Your task to perform on an android device: find photos in the google photos app Image 0: 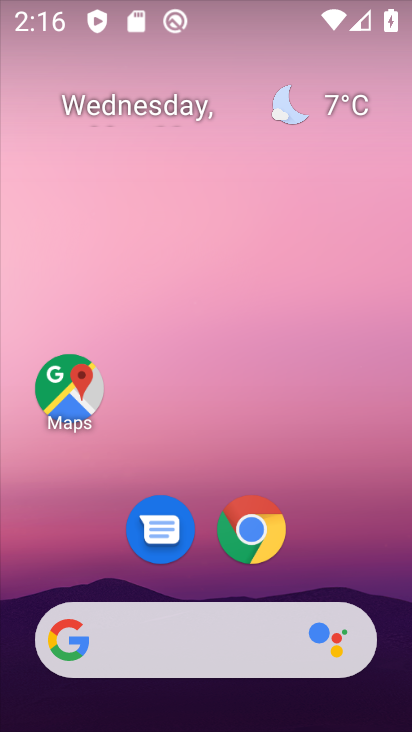
Step 0: press back button
Your task to perform on an android device: find photos in the google photos app Image 1: 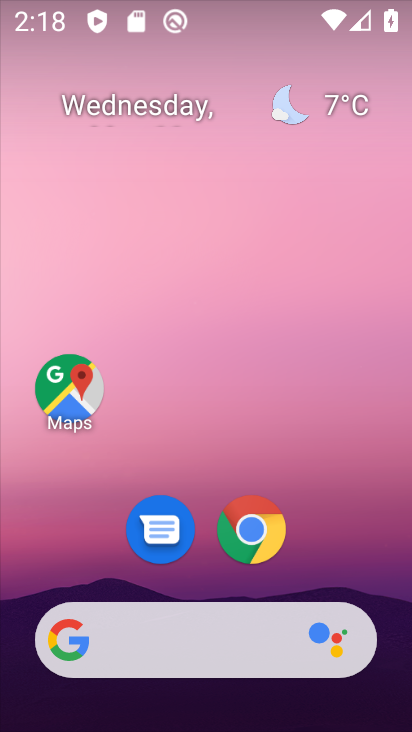
Step 1: drag from (40, 601) to (175, 257)
Your task to perform on an android device: find photos in the google photos app Image 2: 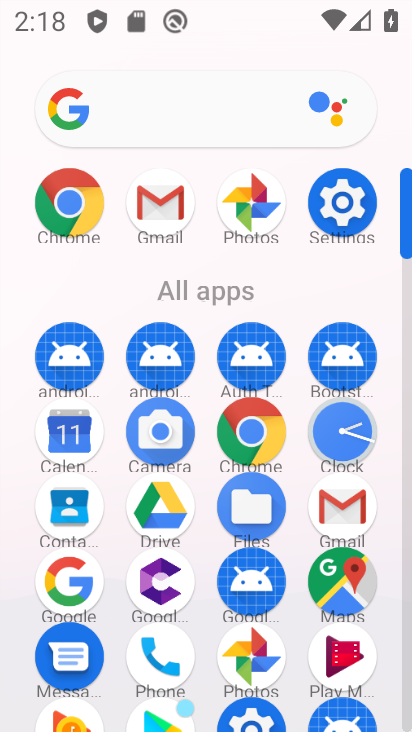
Step 2: click (237, 642)
Your task to perform on an android device: find photos in the google photos app Image 3: 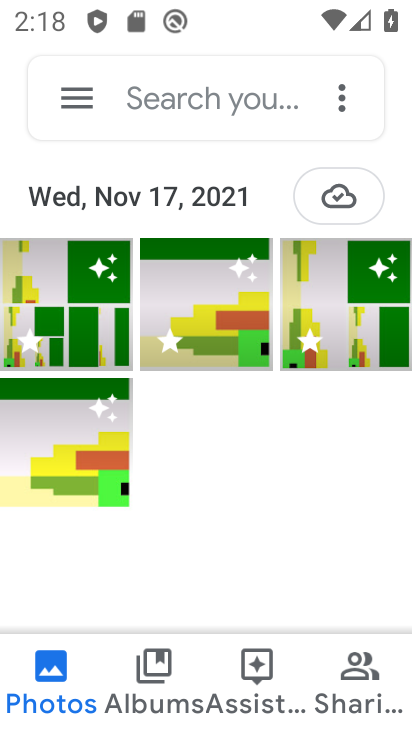
Step 3: task complete